Your task to perform on an android device: find photos in the google photos app Image 0: 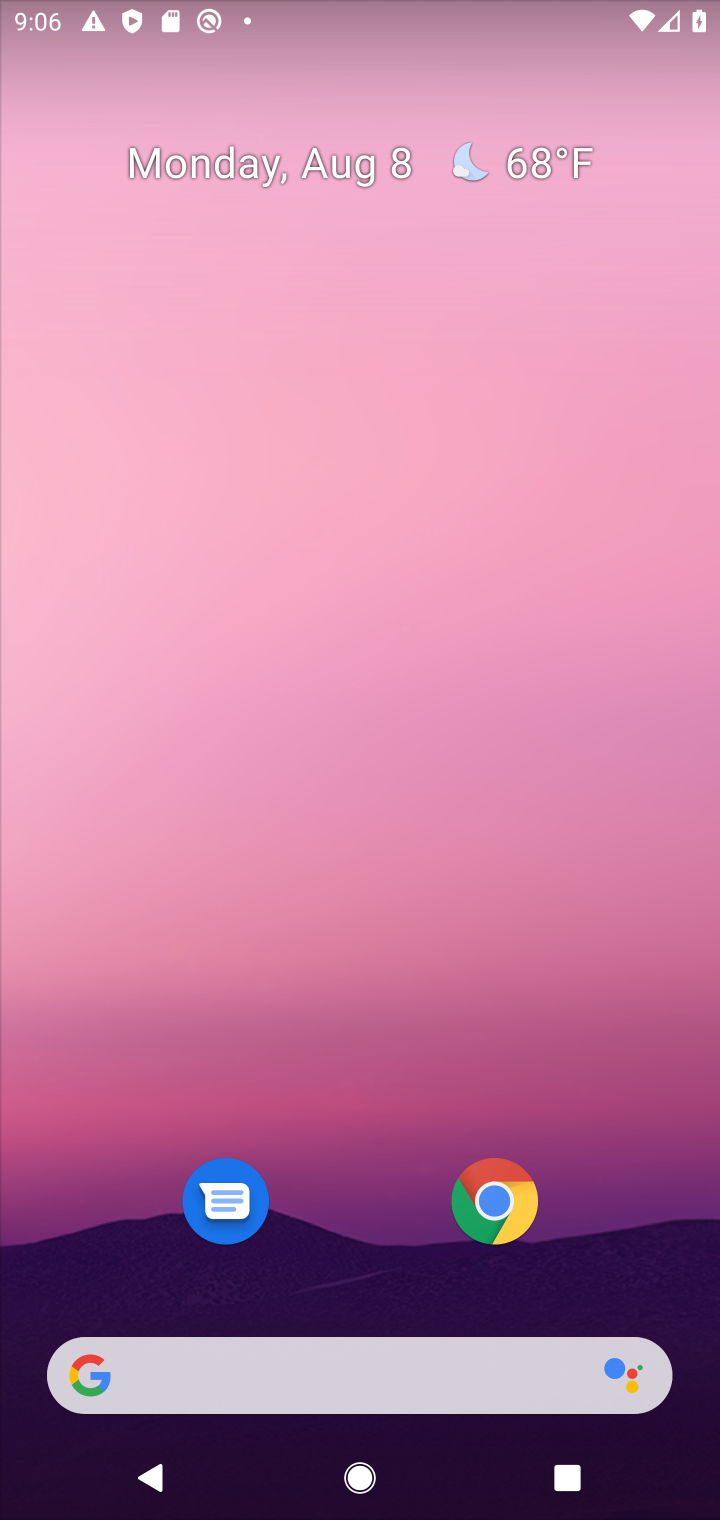
Step 0: press home button
Your task to perform on an android device: find photos in the google photos app Image 1: 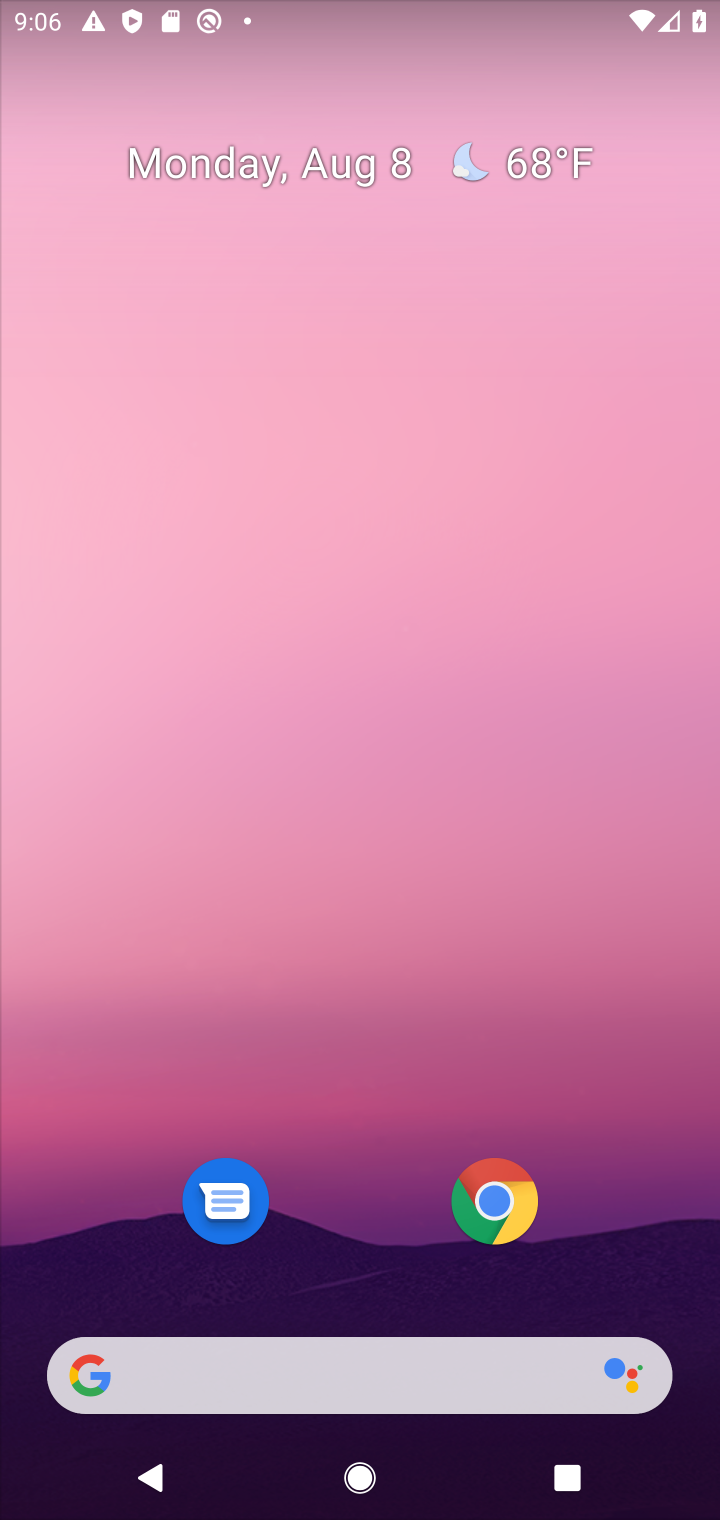
Step 1: drag from (366, 1193) to (348, 173)
Your task to perform on an android device: find photos in the google photos app Image 2: 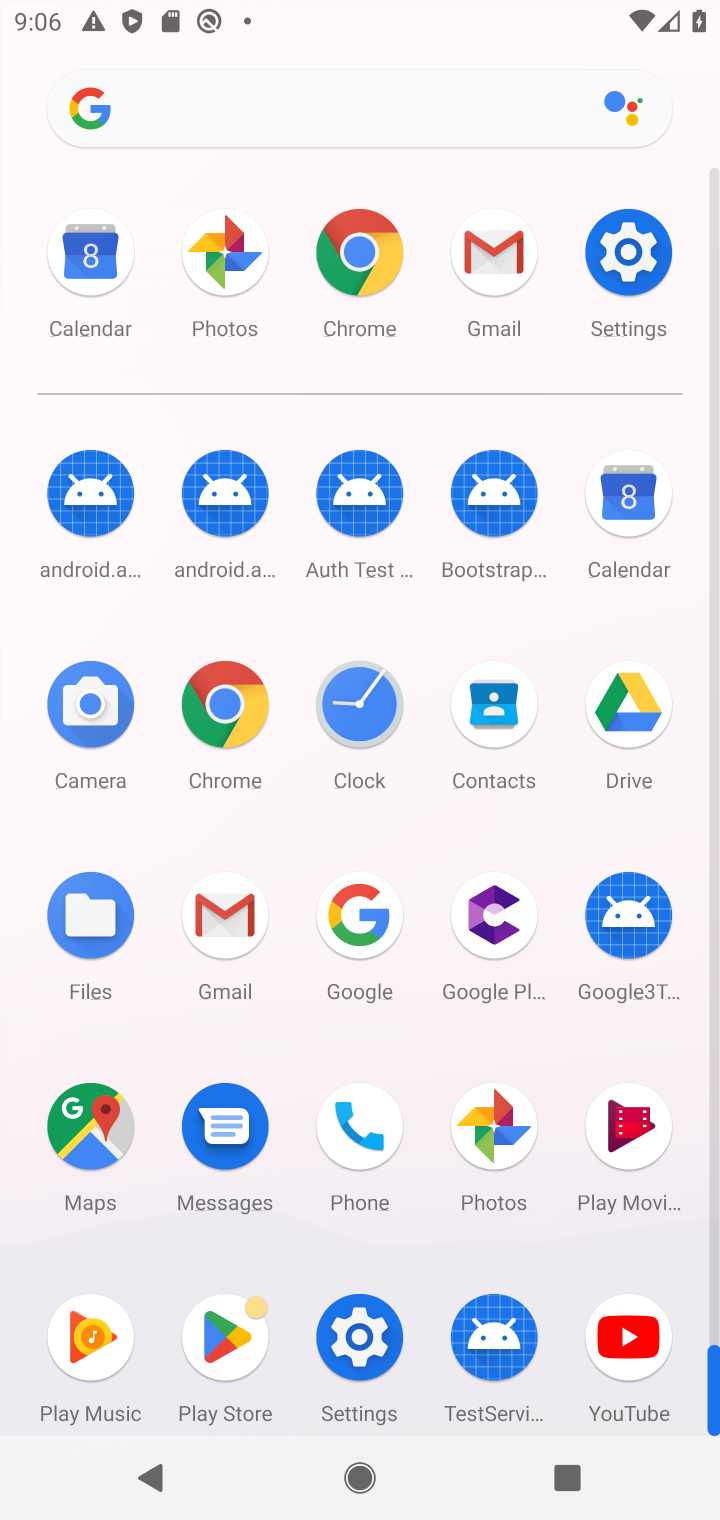
Step 2: click (488, 1130)
Your task to perform on an android device: find photos in the google photos app Image 3: 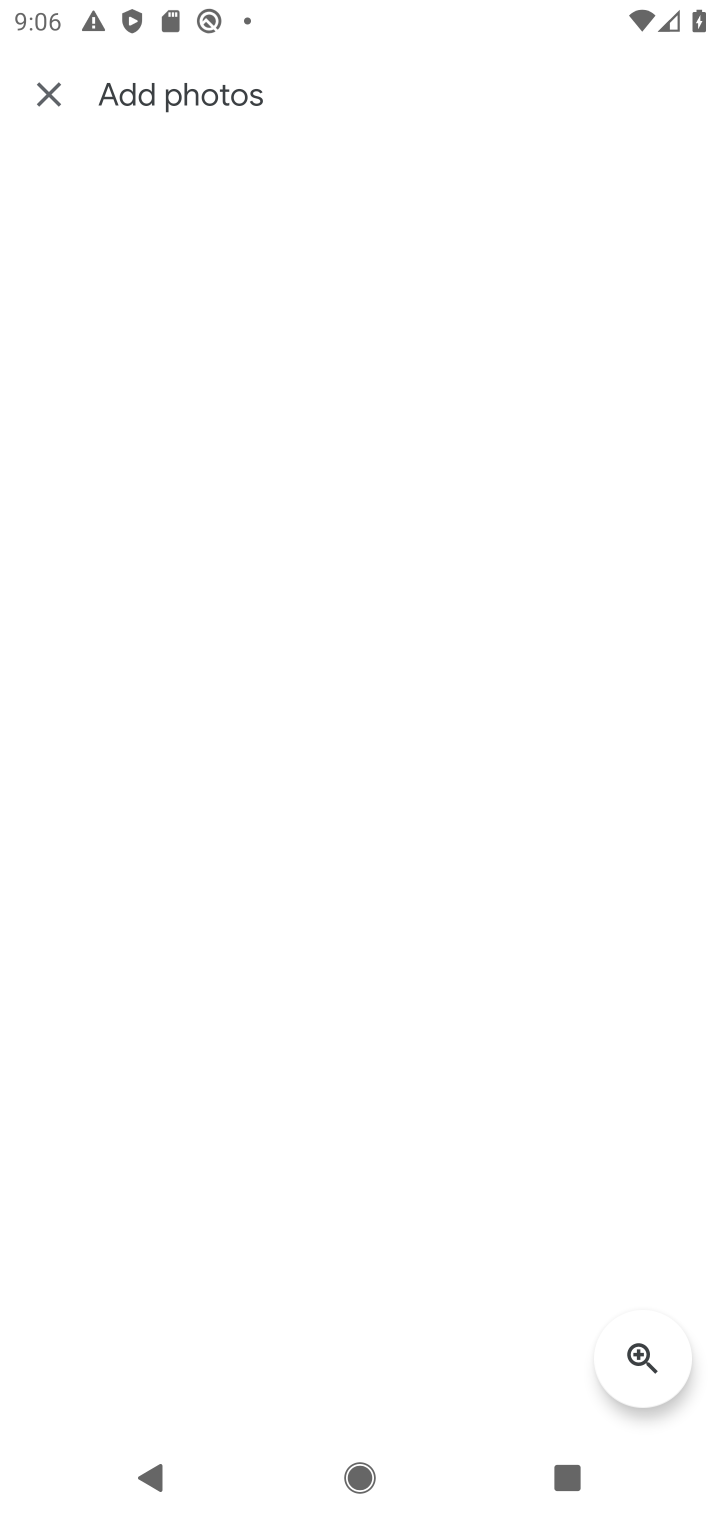
Step 3: task complete